Your task to perform on an android device: uninstall "eBay: The shopping marketplace" Image 0: 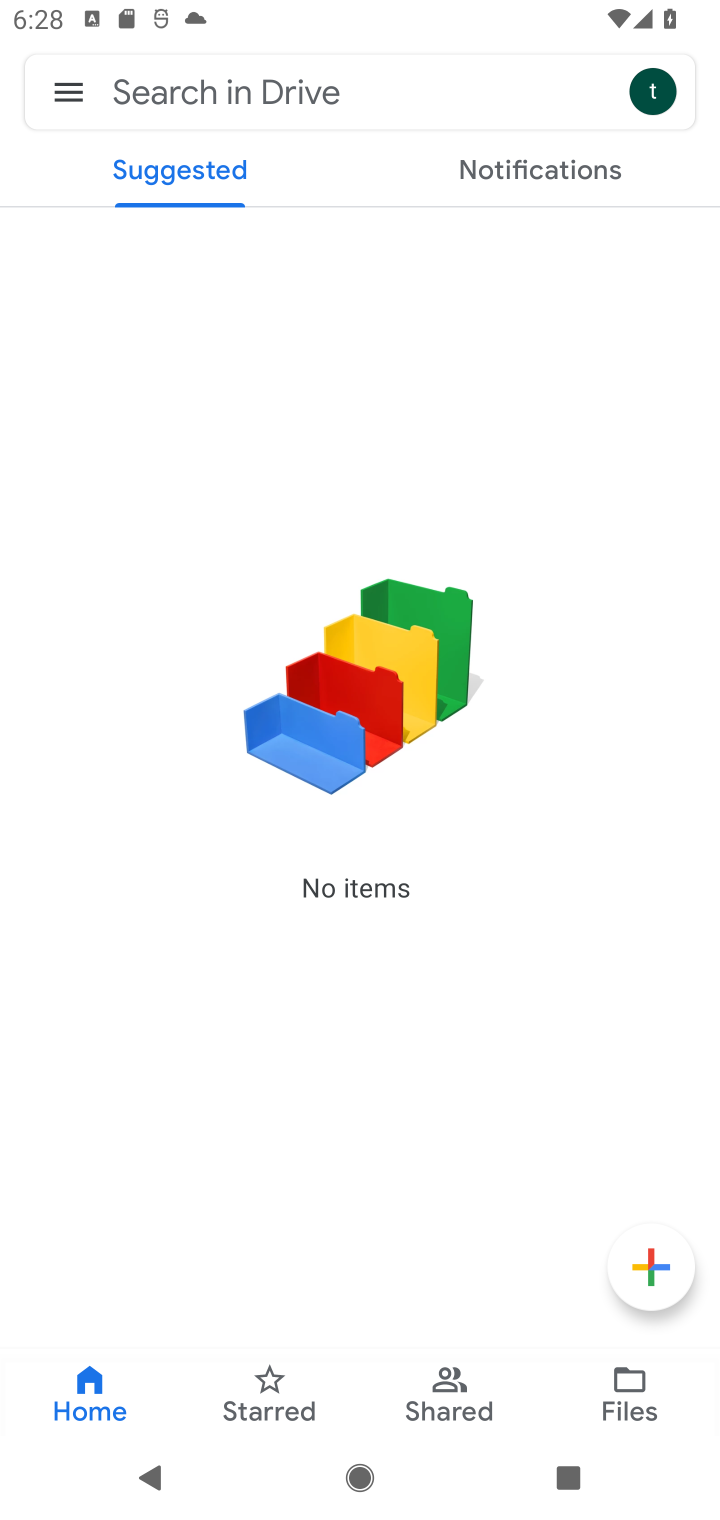
Step 0: press home button
Your task to perform on an android device: uninstall "eBay: The shopping marketplace" Image 1: 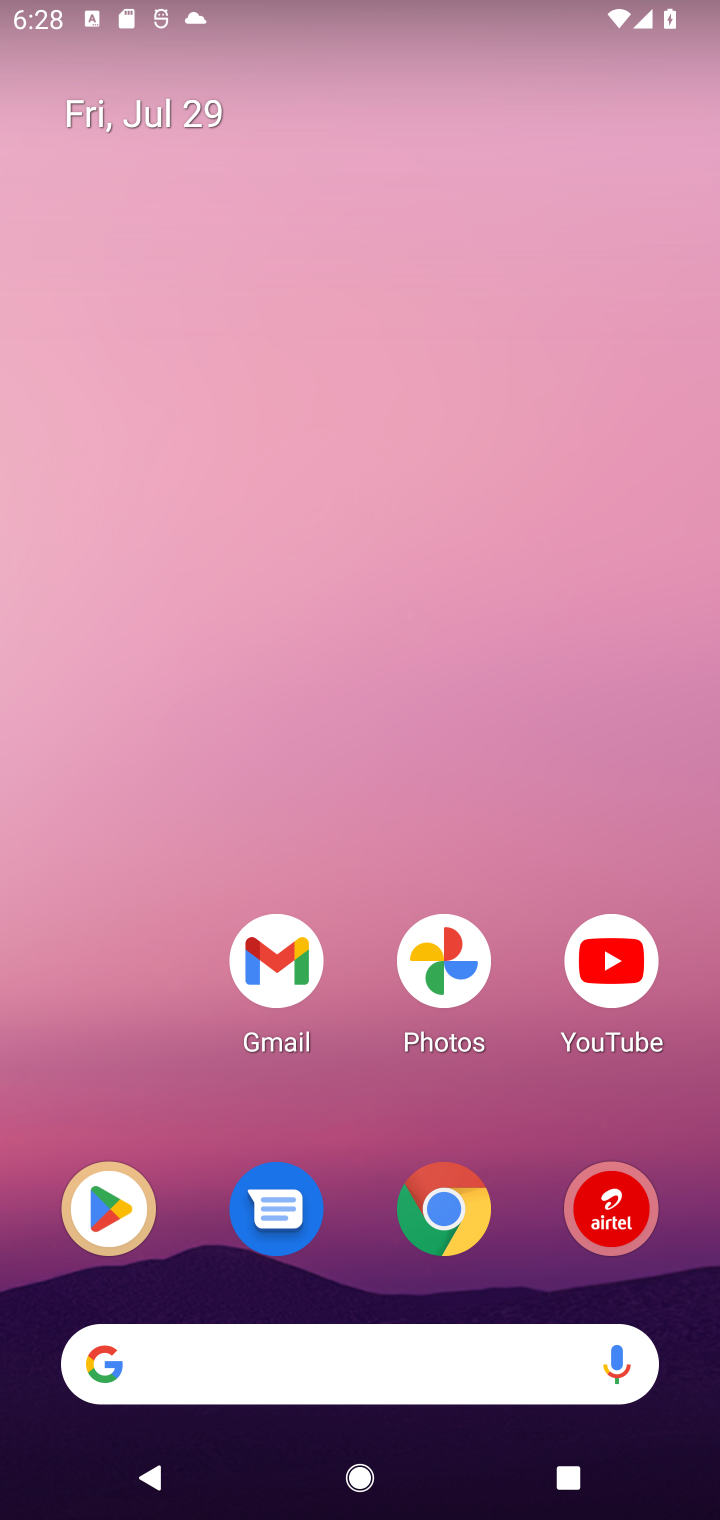
Step 1: click (115, 1236)
Your task to perform on an android device: uninstall "eBay: The shopping marketplace" Image 2: 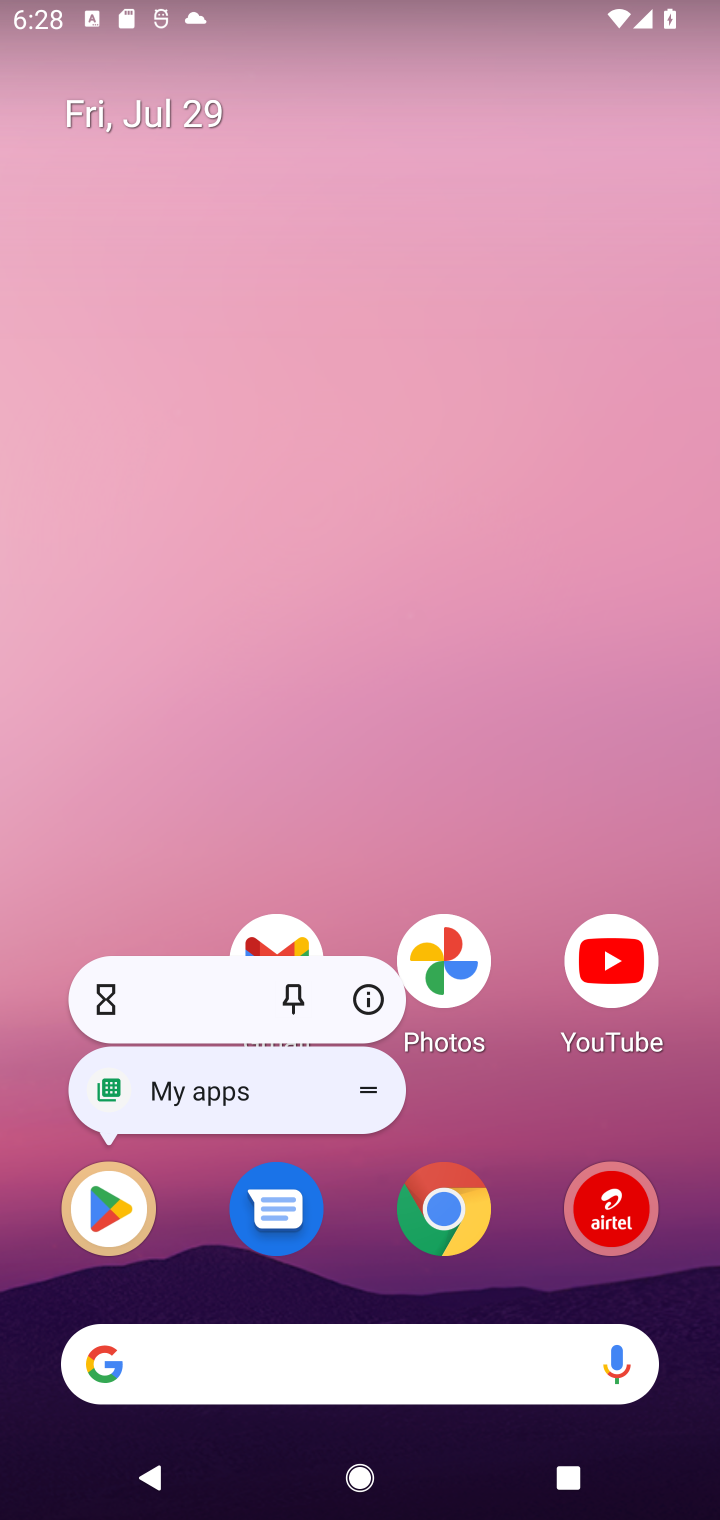
Step 2: click (115, 1234)
Your task to perform on an android device: uninstall "eBay: The shopping marketplace" Image 3: 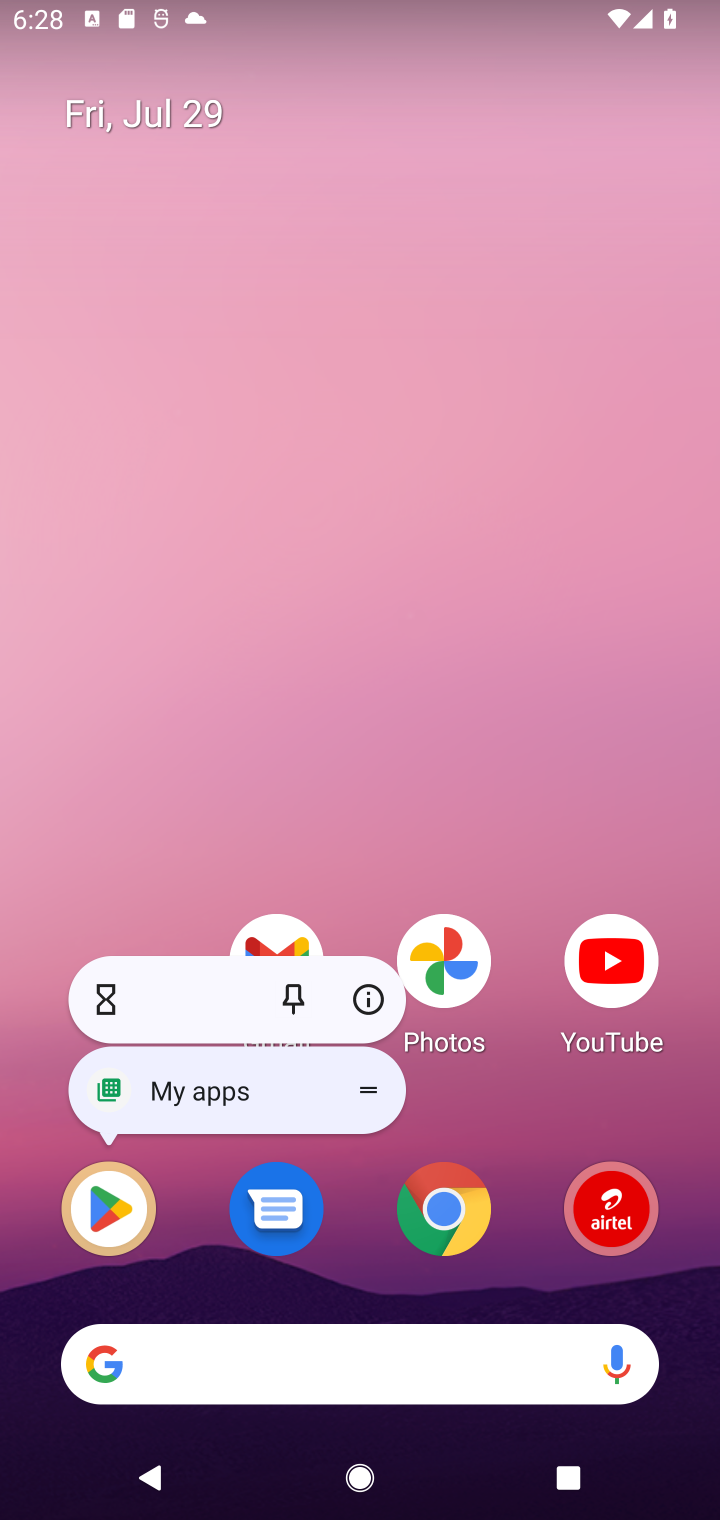
Step 3: click (98, 1215)
Your task to perform on an android device: uninstall "eBay: The shopping marketplace" Image 4: 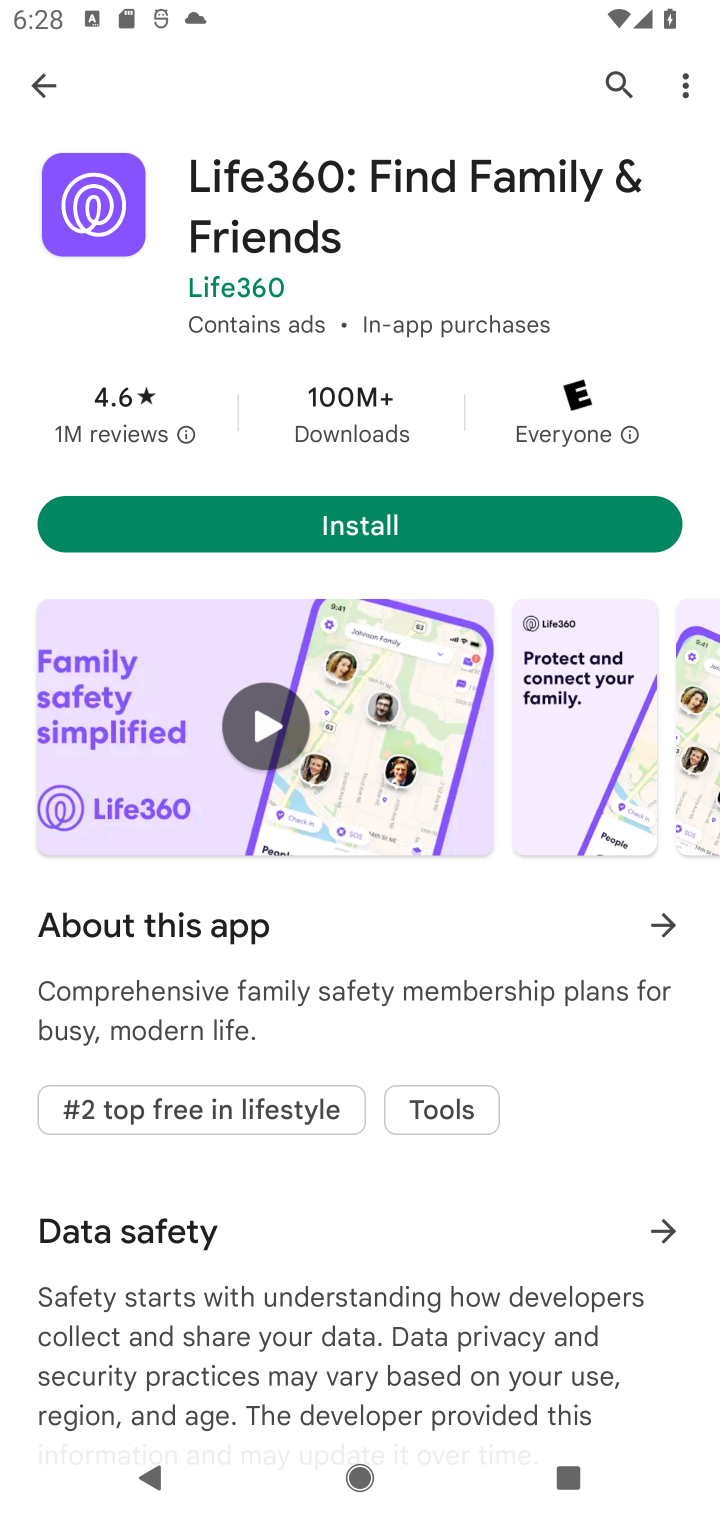
Step 4: click (620, 78)
Your task to perform on an android device: uninstall "eBay: The shopping marketplace" Image 5: 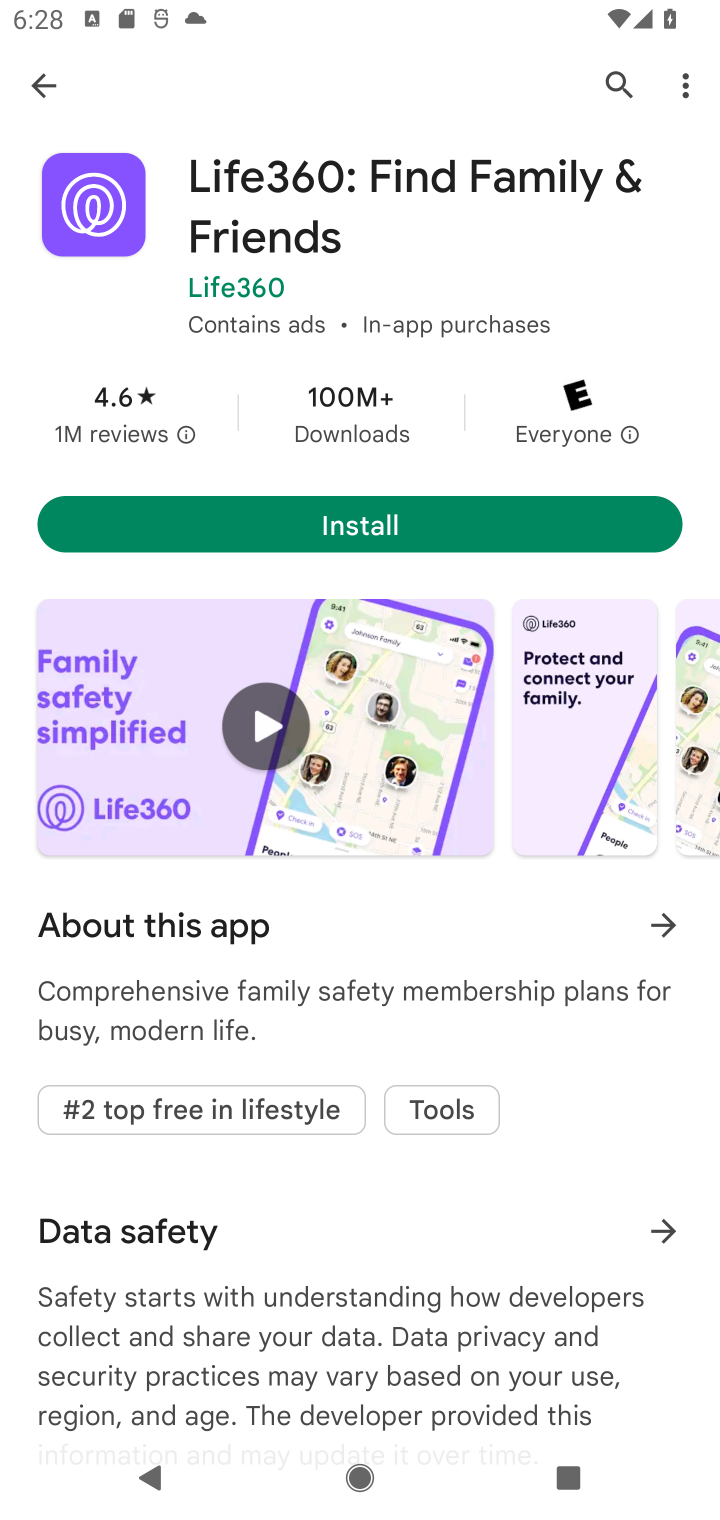
Step 5: click (620, 76)
Your task to perform on an android device: uninstall "eBay: The shopping marketplace" Image 6: 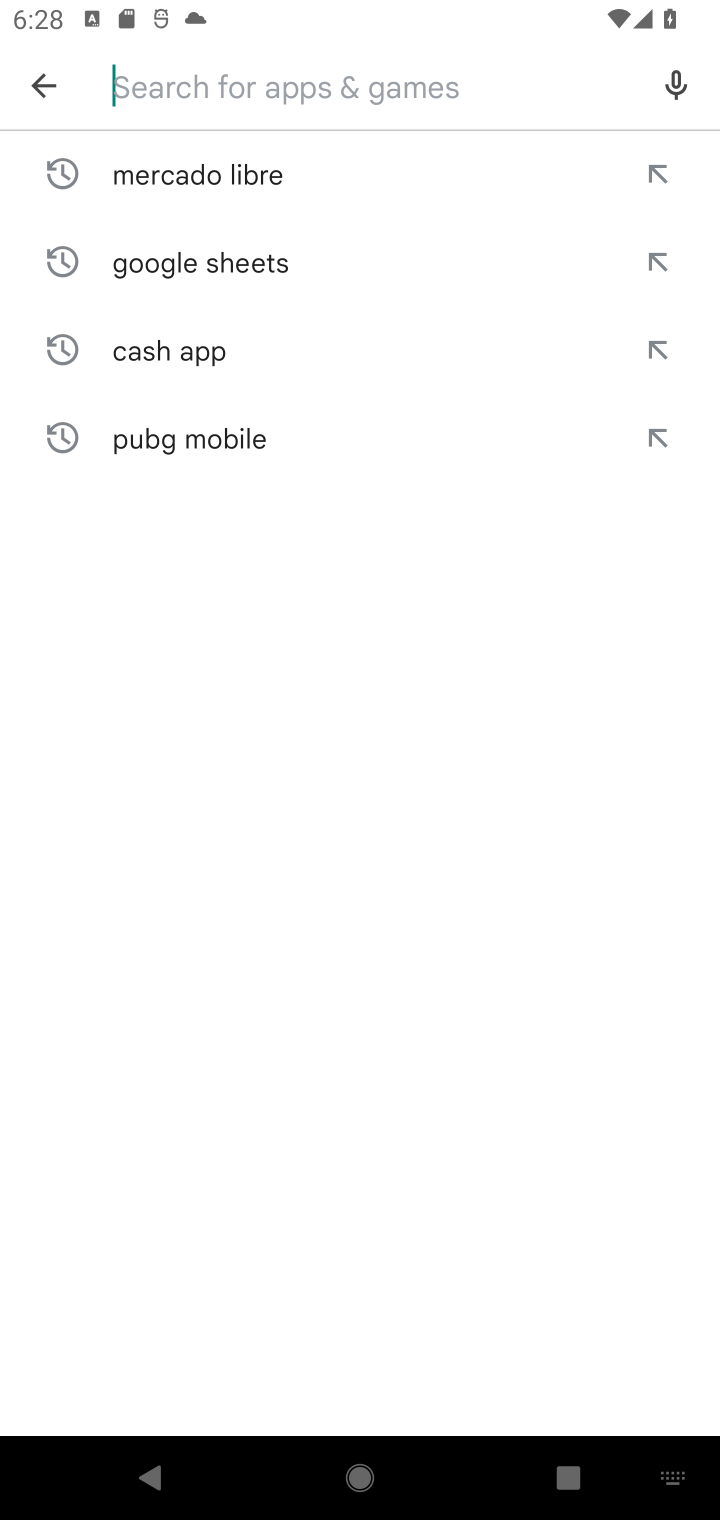
Step 6: click (323, 86)
Your task to perform on an android device: uninstall "eBay: The shopping marketplace" Image 7: 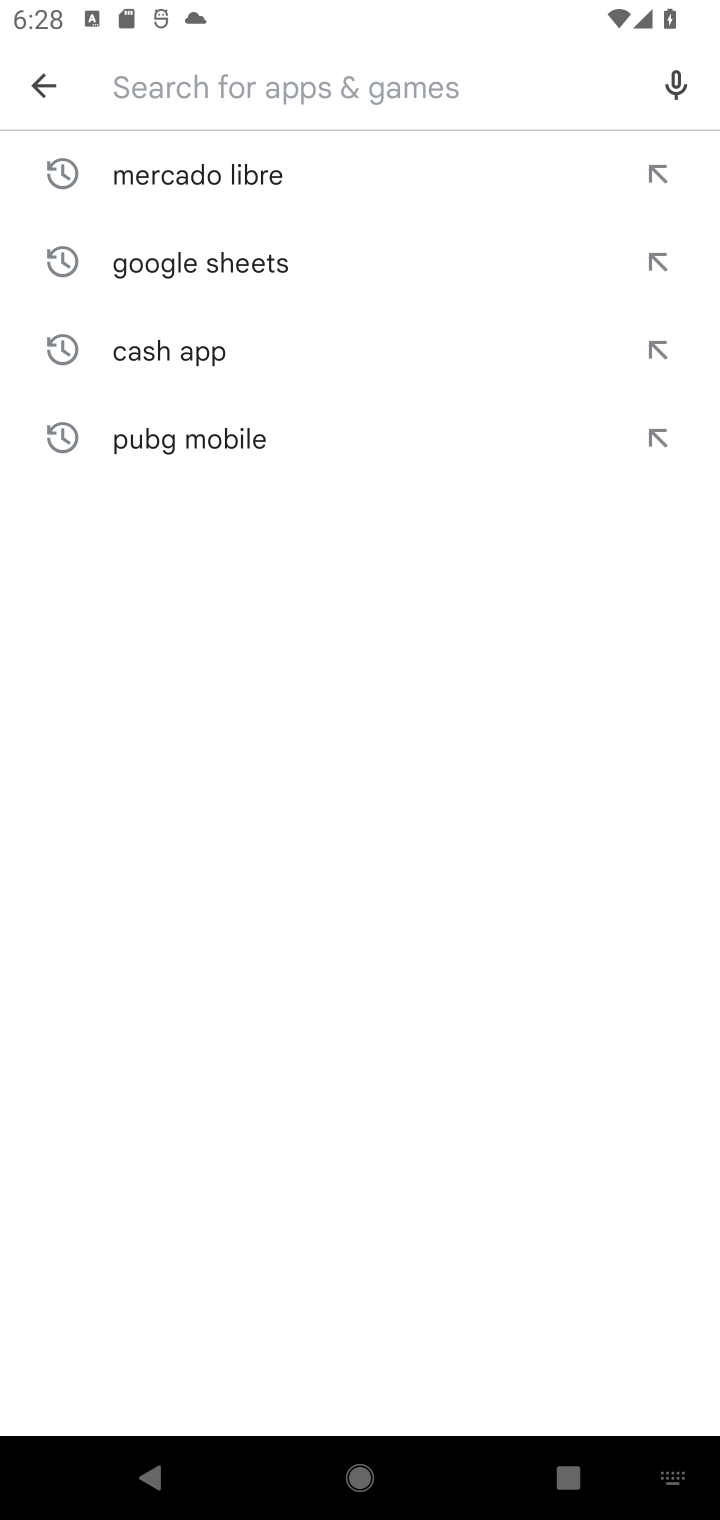
Step 7: type "eBay: The shopping marketplace"
Your task to perform on an android device: uninstall "eBay: The shopping marketplace" Image 8: 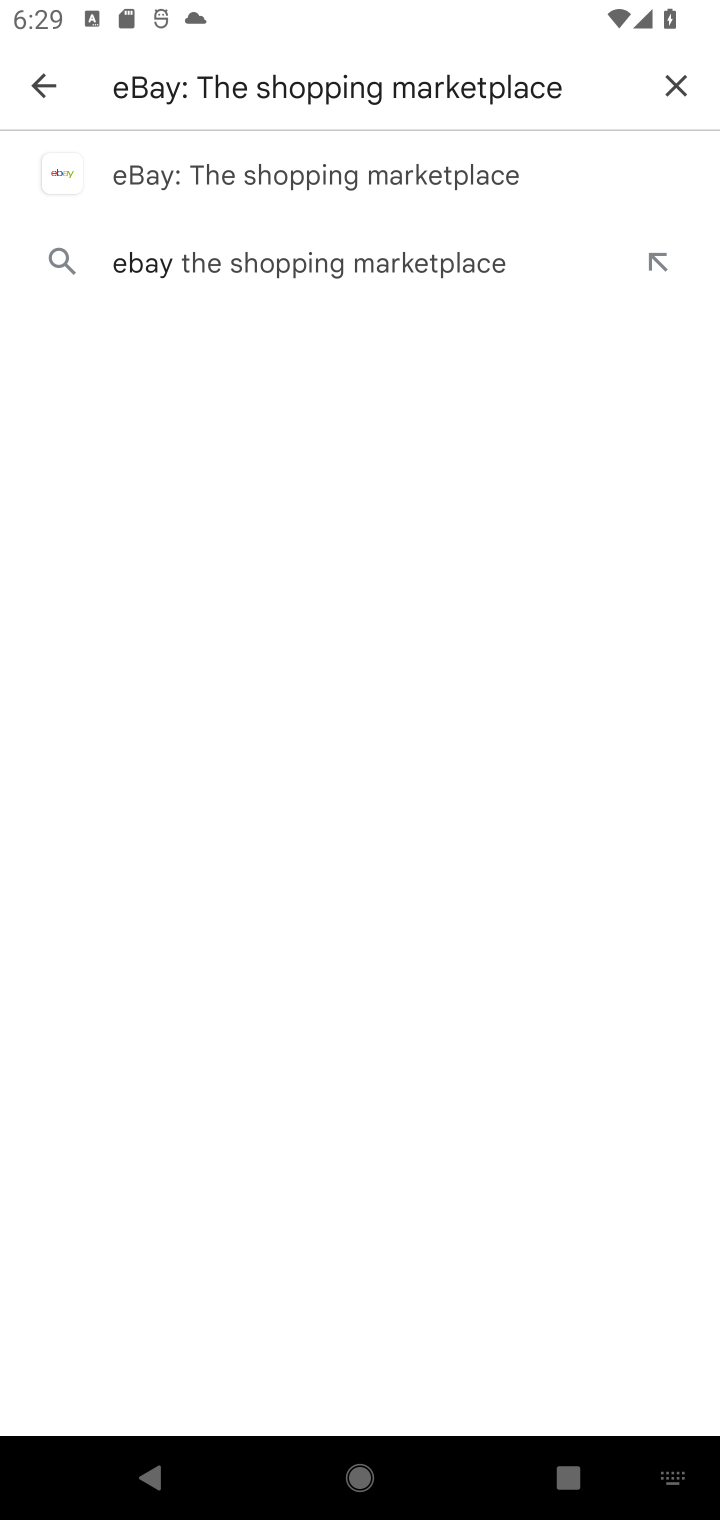
Step 8: click (287, 189)
Your task to perform on an android device: uninstall "eBay: The shopping marketplace" Image 9: 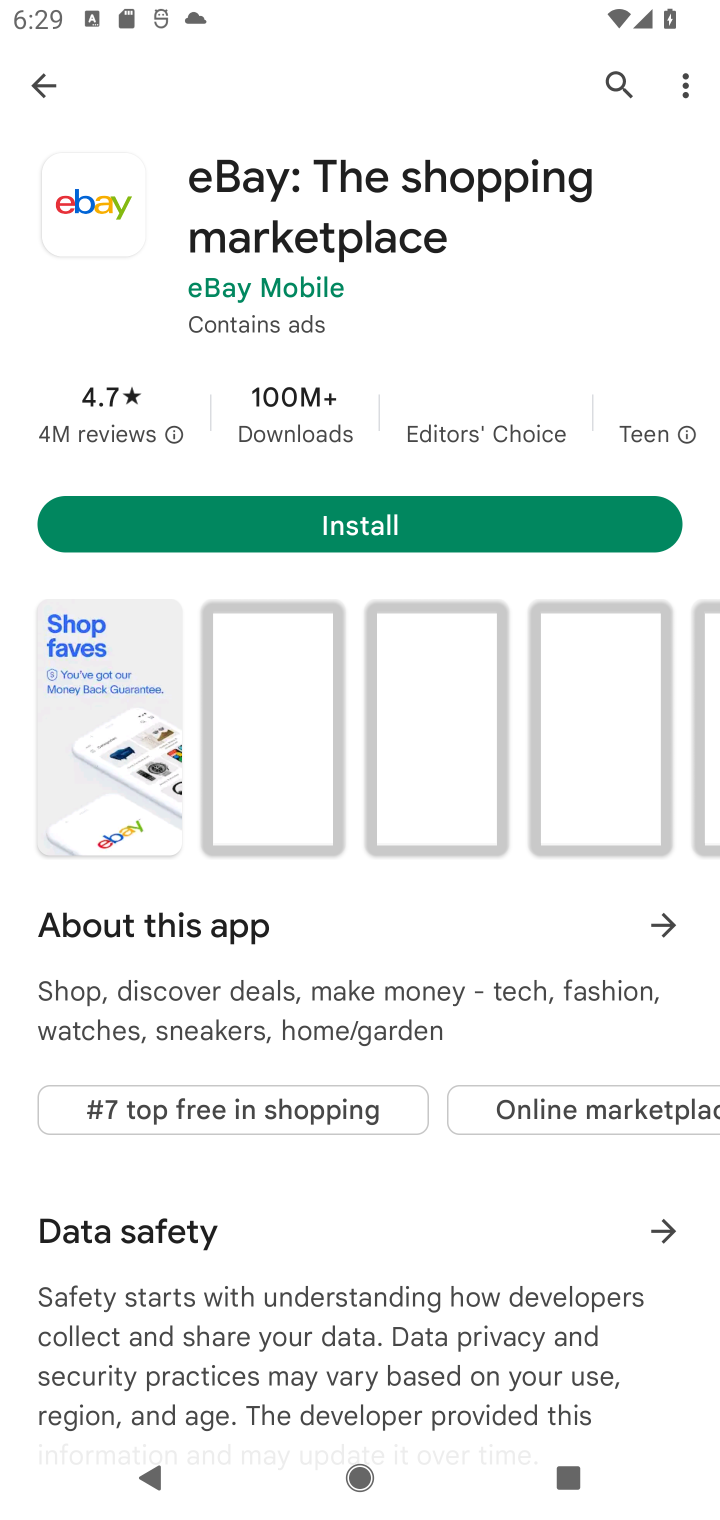
Step 9: task complete